Your task to perform on an android device: Search for the best gaming mouses on Amazon. Image 0: 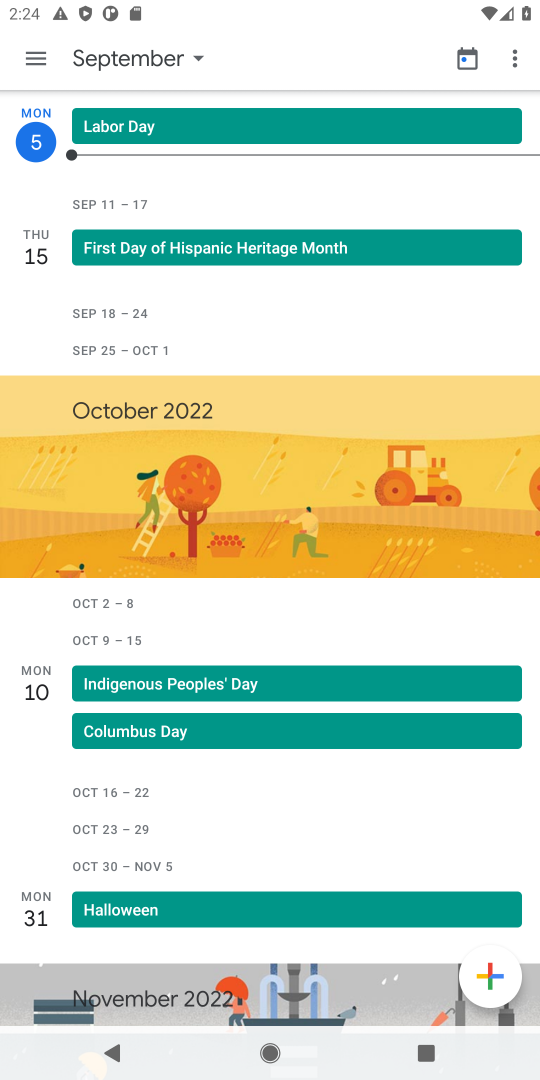
Step 0: press home button
Your task to perform on an android device: Search for the best gaming mouses on Amazon. Image 1: 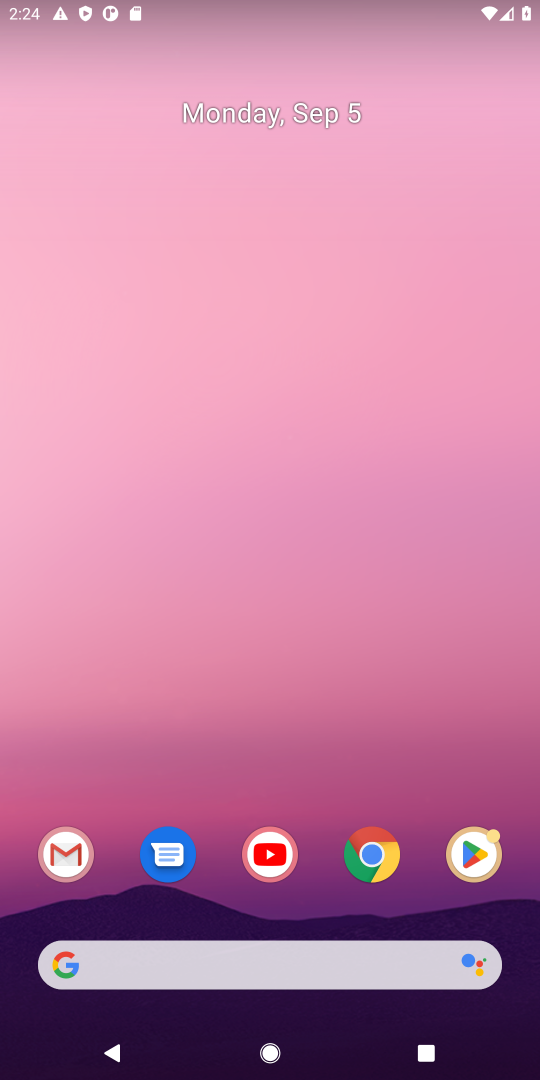
Step 1: click (372, 957)
Your task to perform on an android device: Search for the best gaming mouses on Amazon. Image 2: 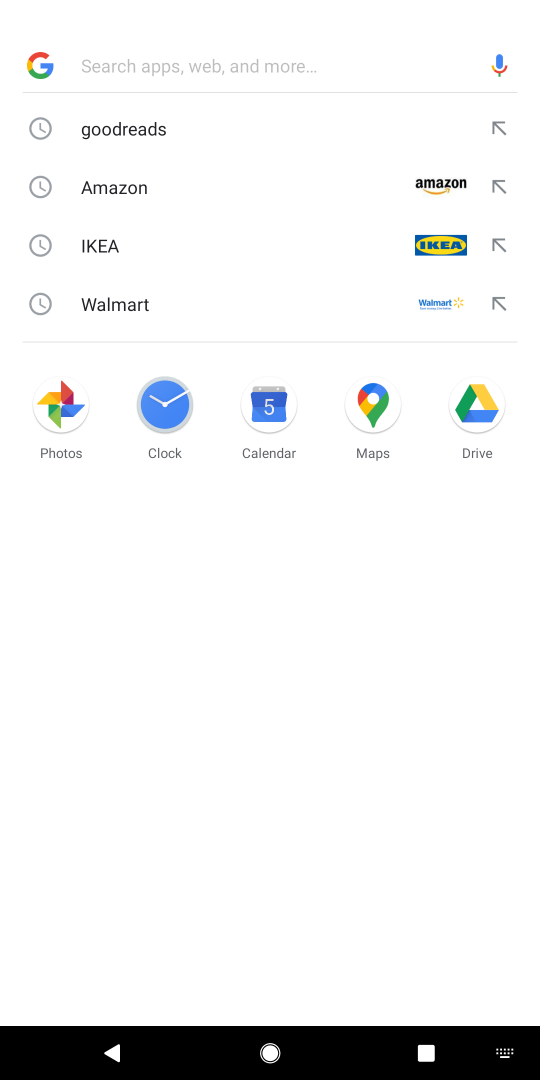
Step 2: type "amazon"
Your task to perform on an android device: Search for the best gaming mouses on Amazon. Image 3: 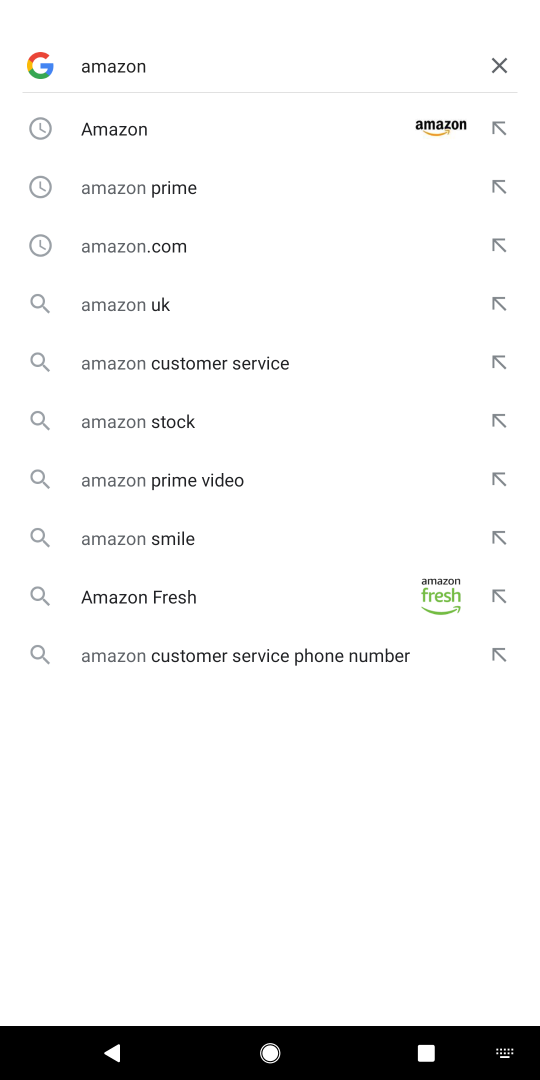
Step 3: press enter
Your task to perform on an android device: Search for the best gaming mouses on Amazon. Image 4: 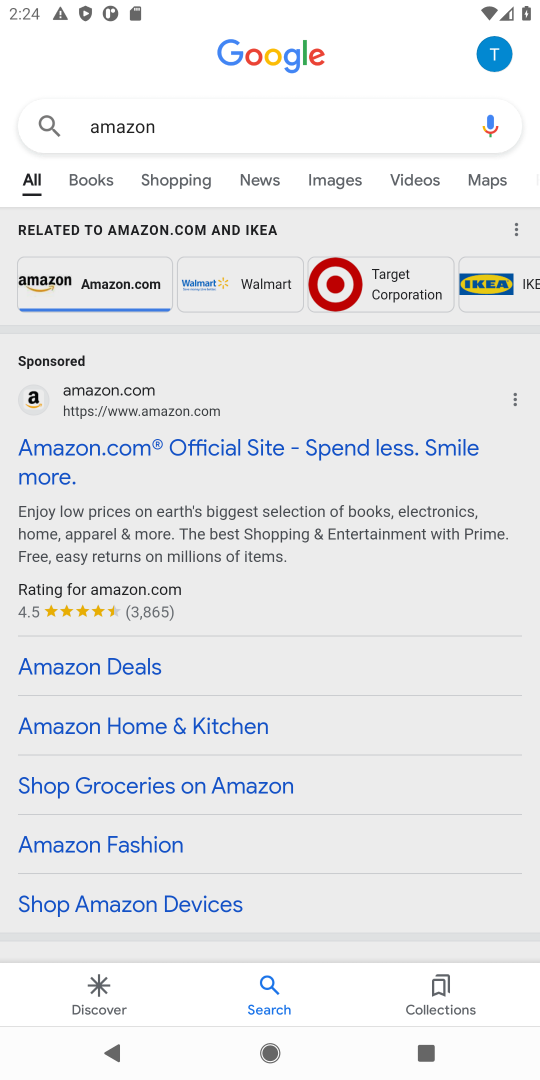
Step 4: click (168, 437)
Your task to perform on an android device: Search for the best gaming mouses on Amazon. Image 5: 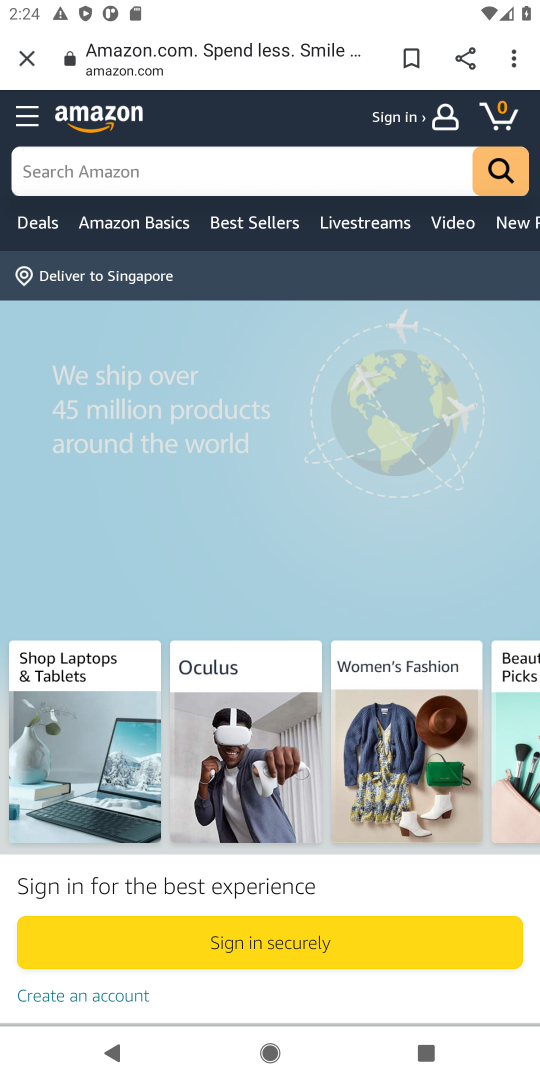
Step 5: click (231, 171)
Your task to perform on an android device: Search for the best gaming mouses on Amazon. Image 6: 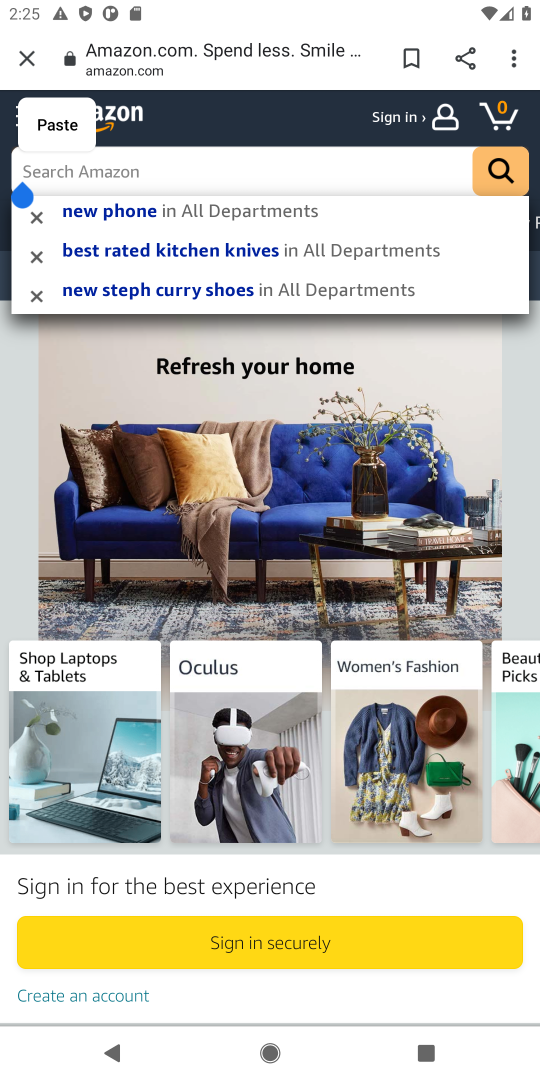
Step 6: type "best gaming mouses"
Your task to perform on an android device: Search for the best gaming mouses on Amazon. Image 7: 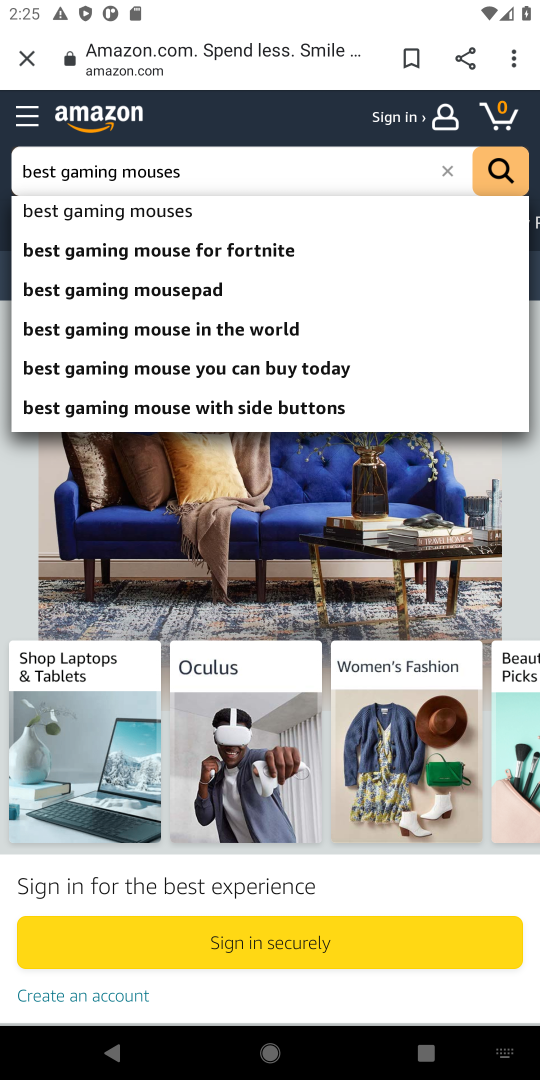
Step 7: click (199, 203)
Your task to perform on an android device: Search for the best gaming mouses on Amazon. Image 8: 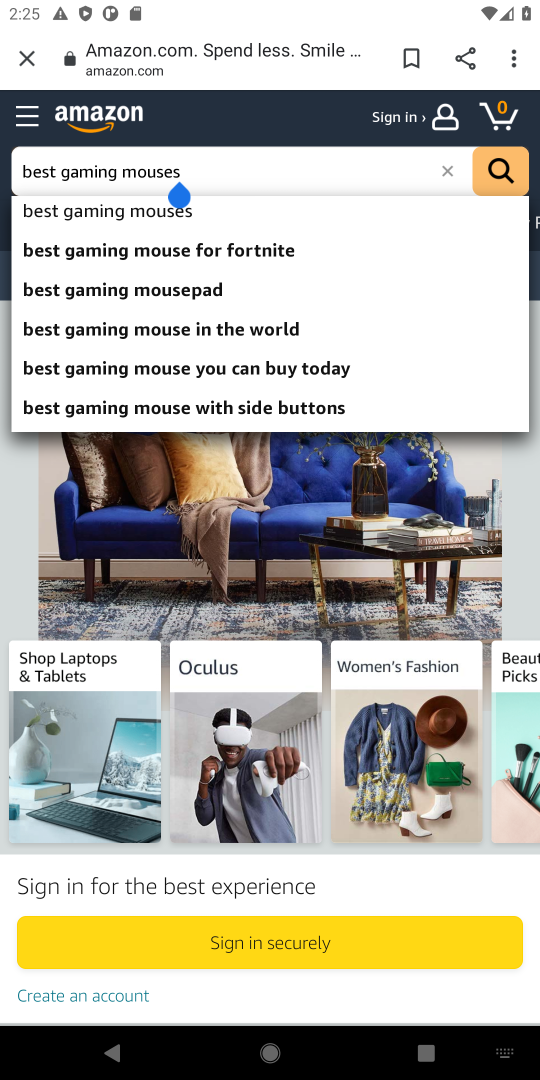
Step 8: click (508, 171)
Your task to perform on an android device: Search for the best gaming mouses on Amazon. Image 9: 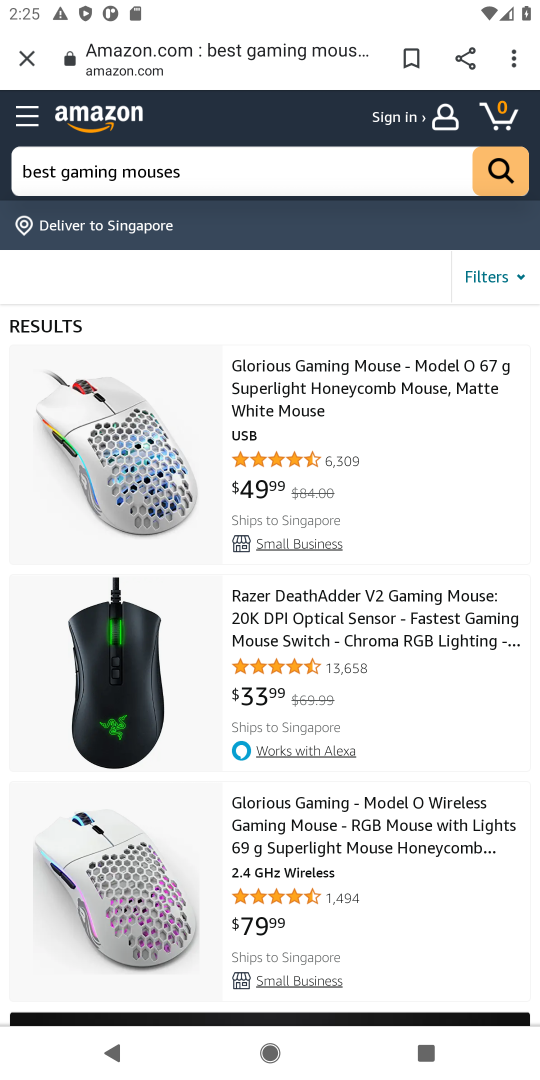
Step 9: task complete